Your task to perform on an android device: turn on airplane mode Image 0: 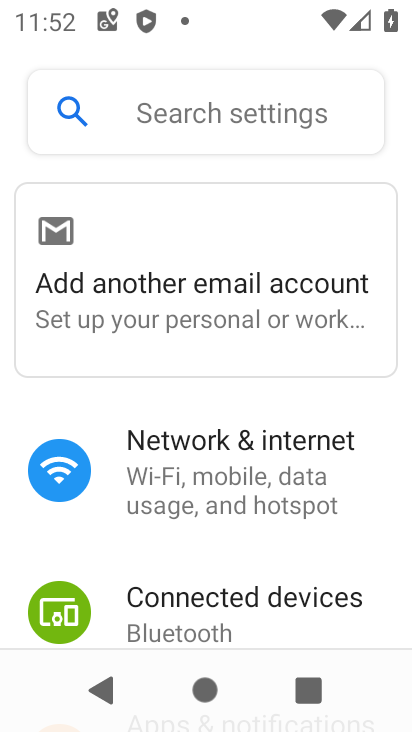
Step 0: click (205, 473)
Your task to perform on an android device: turn on airplane mode Image 1: 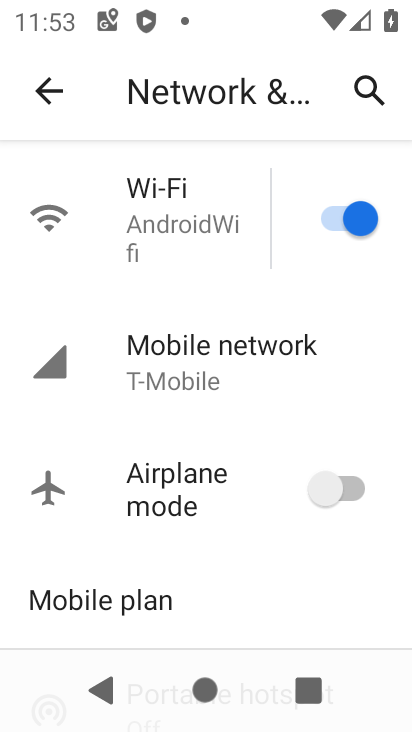
Step 1: click (341, 484)
Your task to perform on an android device: turn on airplane mode Image 2: 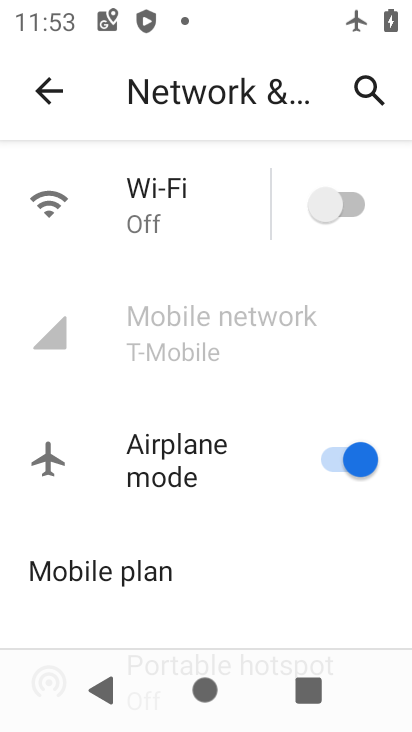
Step 2: task complete